Your task to perform on an android device: turn off improve location accuracy Image 0: 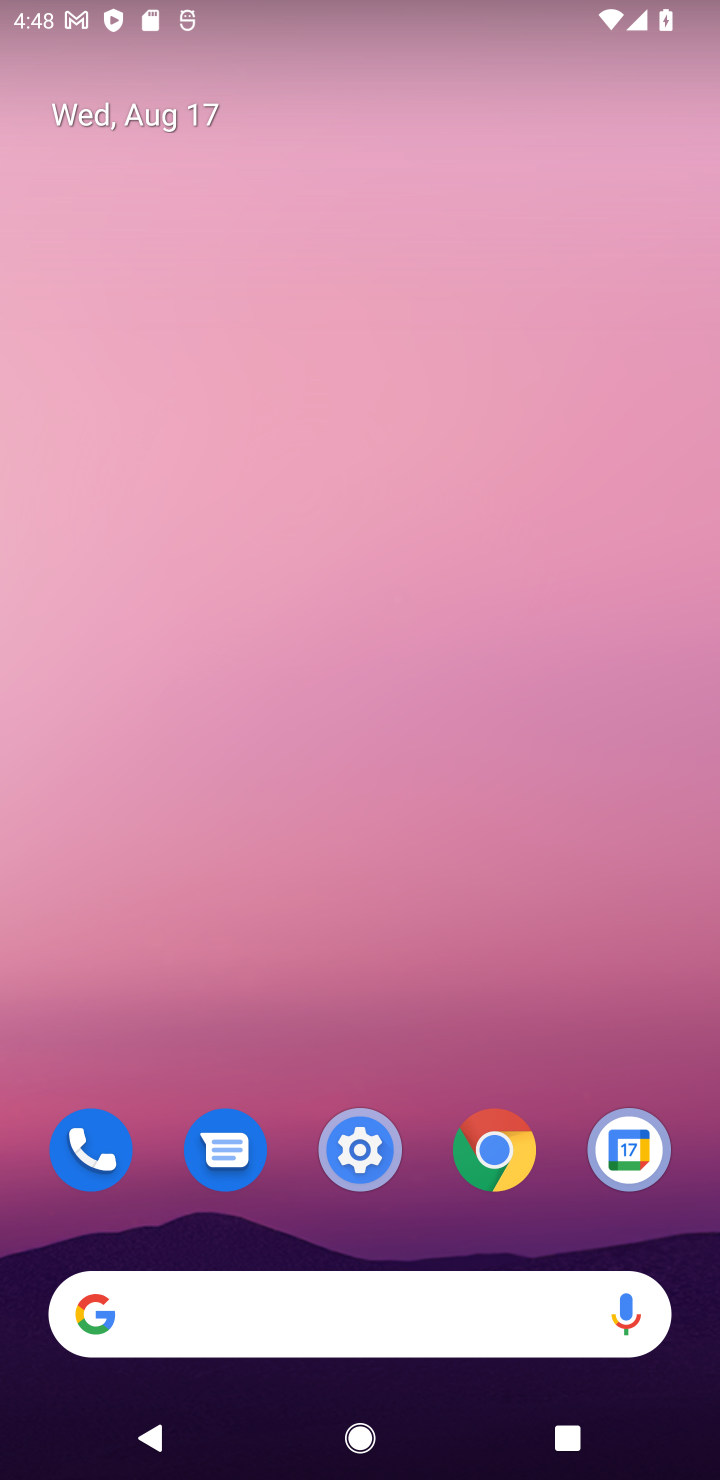
Step 0: drag from (561, 1180) to (215, 34)
Your task to perform on an android device: turn off improve location accuracy Image 1: 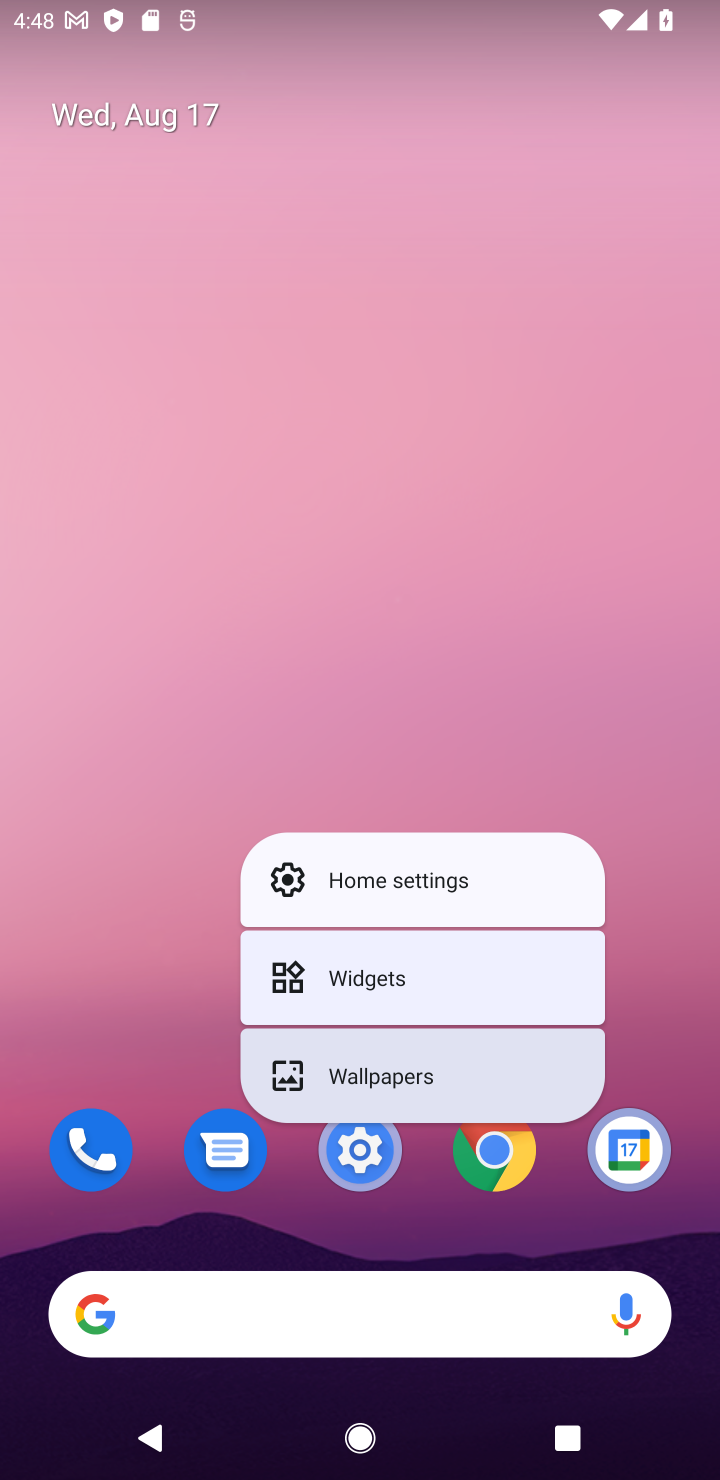
Step 1: click (455, 413)
Your task to perform on an android device: turn off improve location accuracy Image 2: 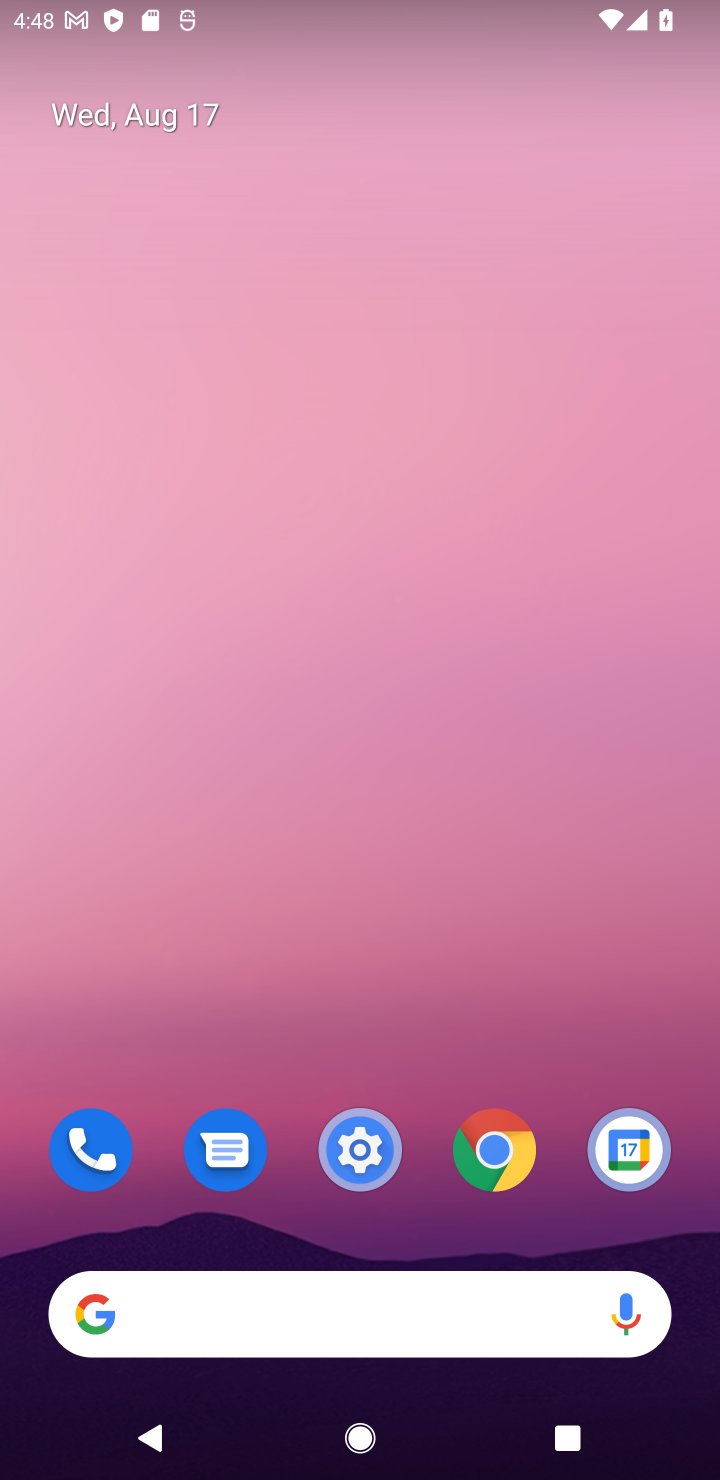
Step 2: drag from (559, 1232) to (370, 88)
Your task to perform on an android device: turn off improve location accuracy Image 3: 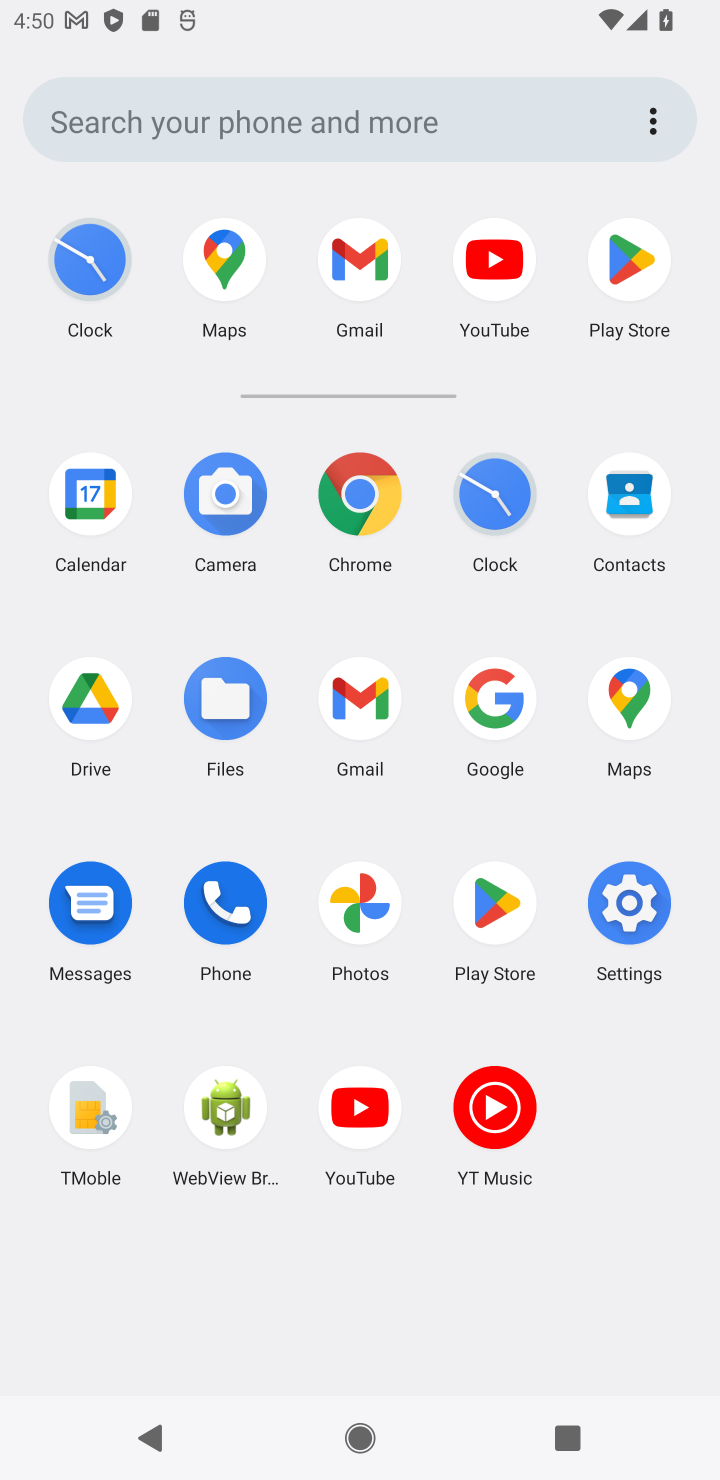
Step 3: click (598, 911)
Your task to perform on an android device: turn off improve location accuracy Image 4: 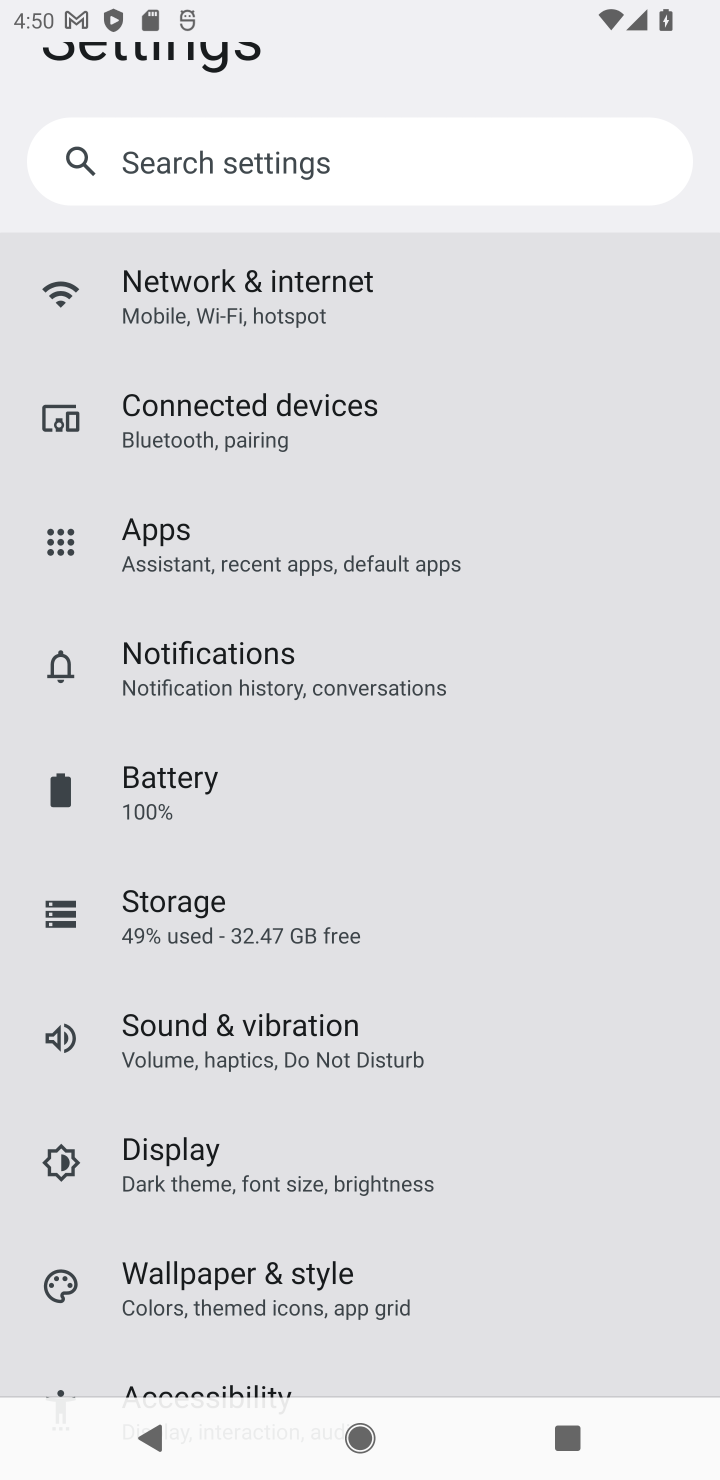
Step 4: drag from (204, 1257) to (220, 287)
Your task to perform on an android device: turn off improve location accuracy Image 5: 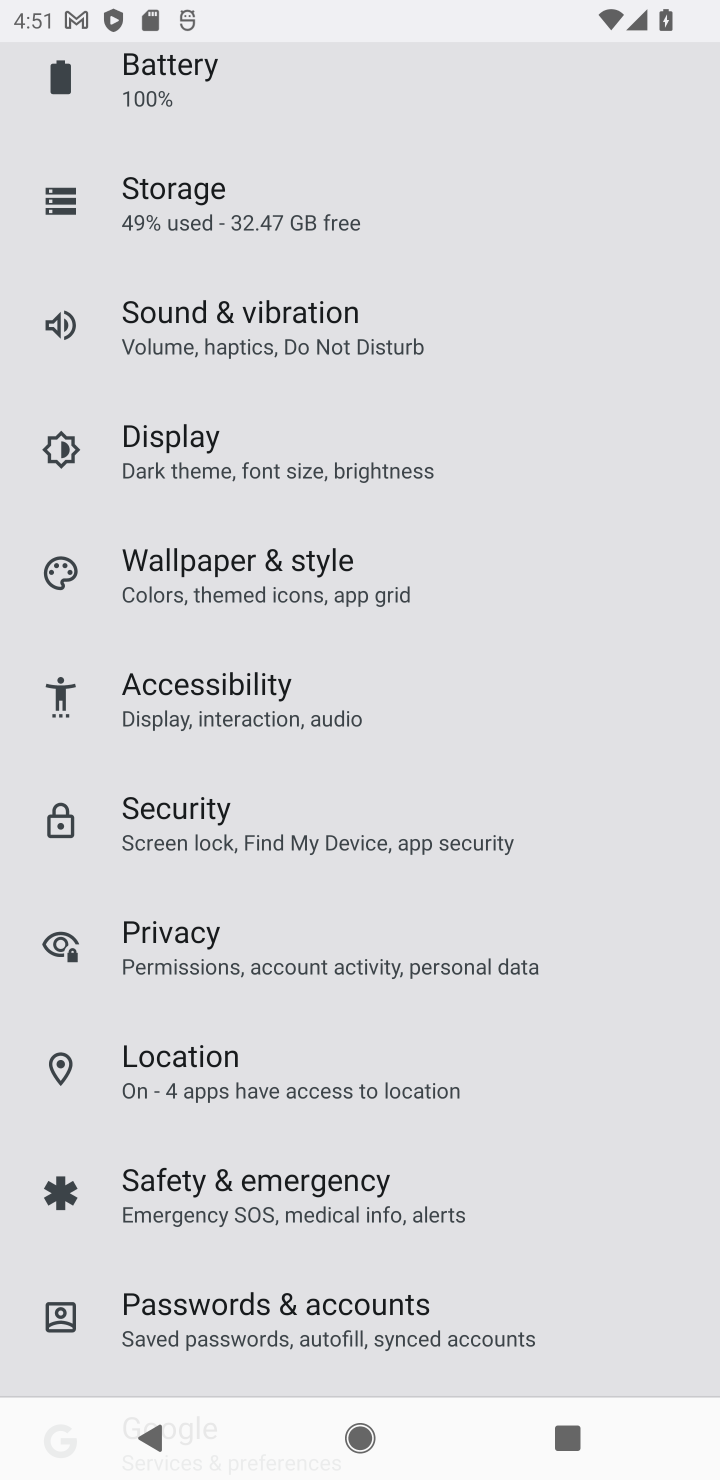
Step 5: click (152, 1071)
Your task to perform on an android device: turn off improve location accuracy Image 6: 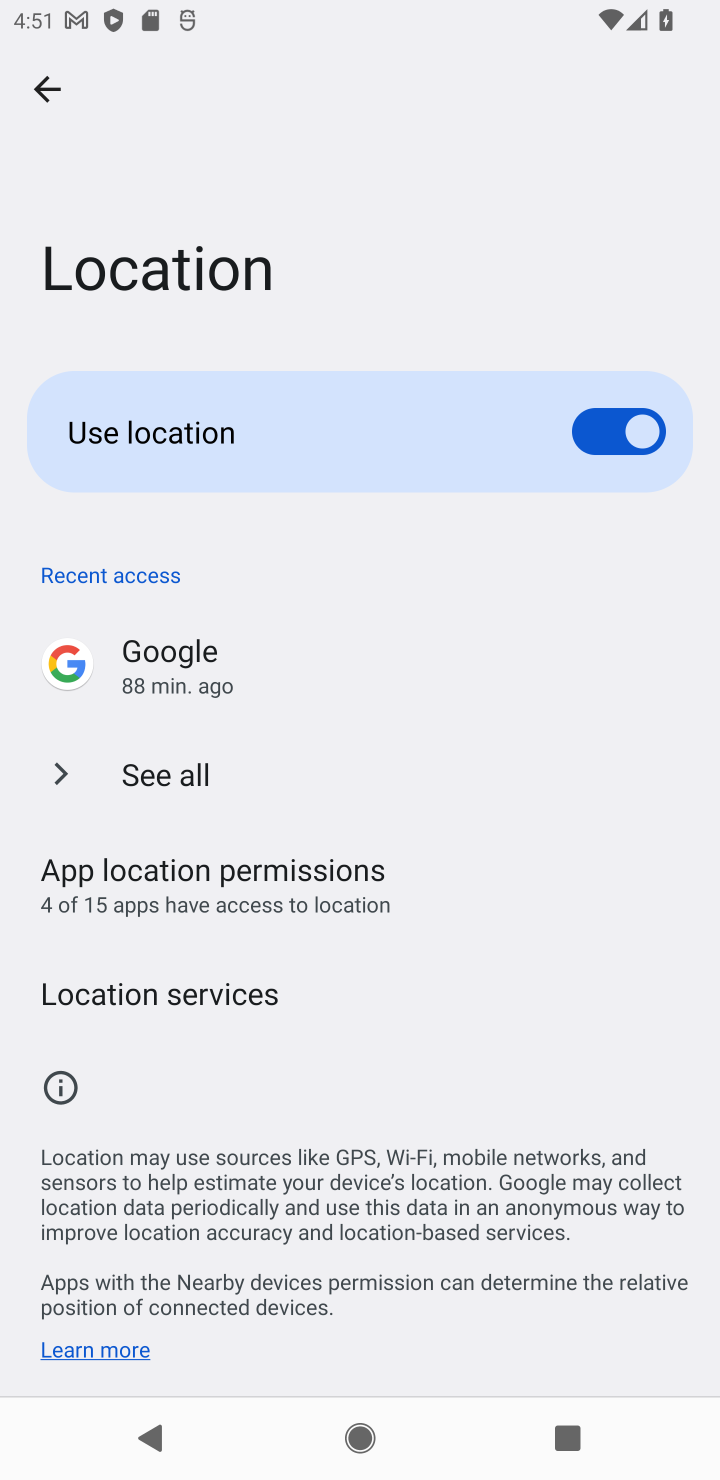
Step 6: click (172, 983)
Your task to perform on an android device: turn off improve location accuracy Image 7: 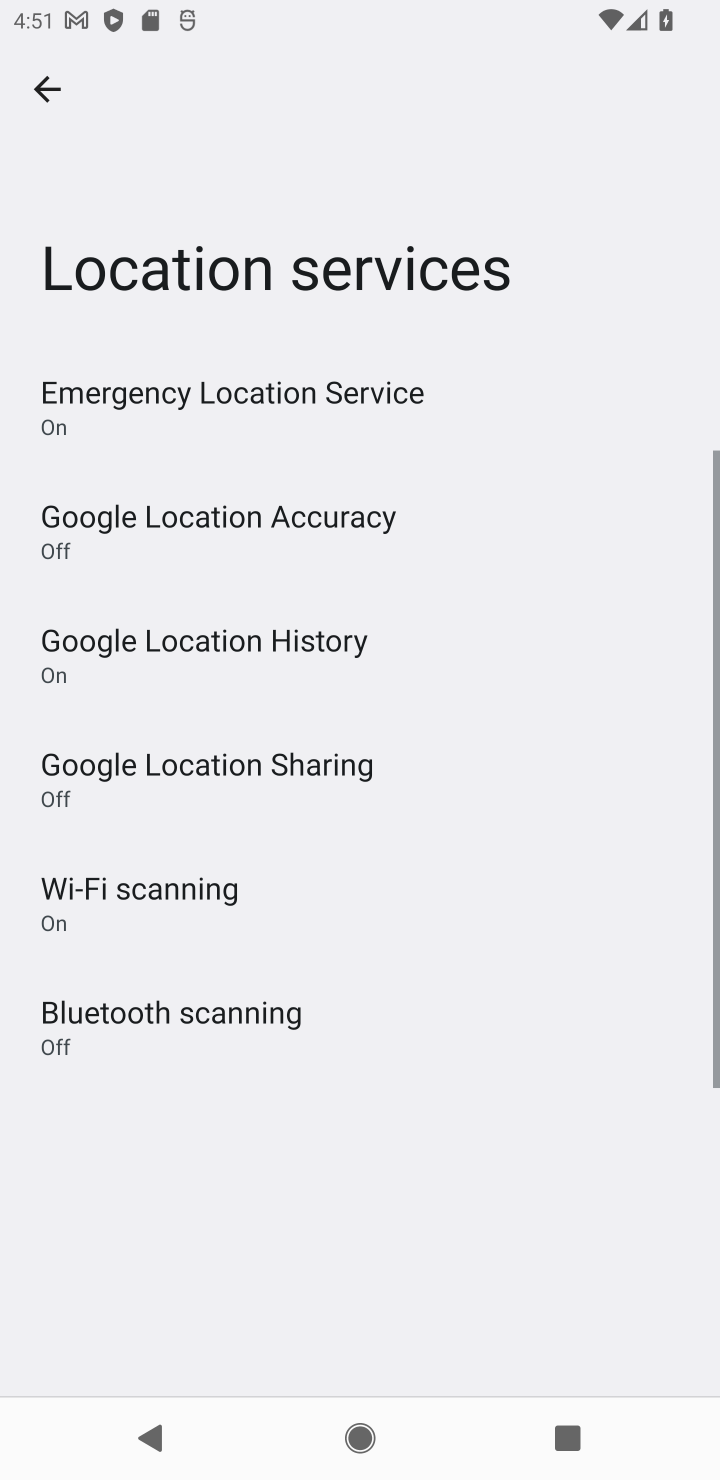
Step 7: click (327, 518)
Your task to perform on an android device: turn off improve location accuracy Image 8: 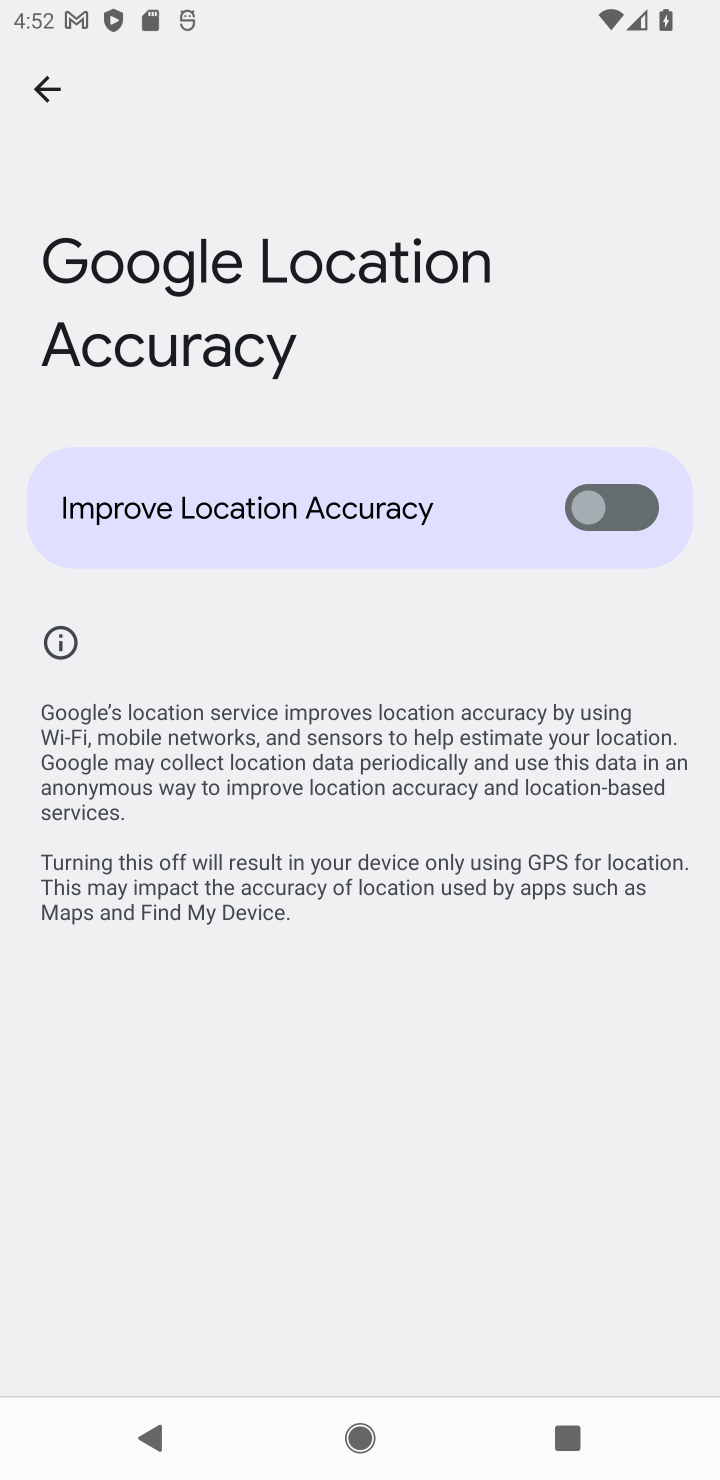
Step 8: task complete